Your task to perform on an android device: Go to network settings Image 0: 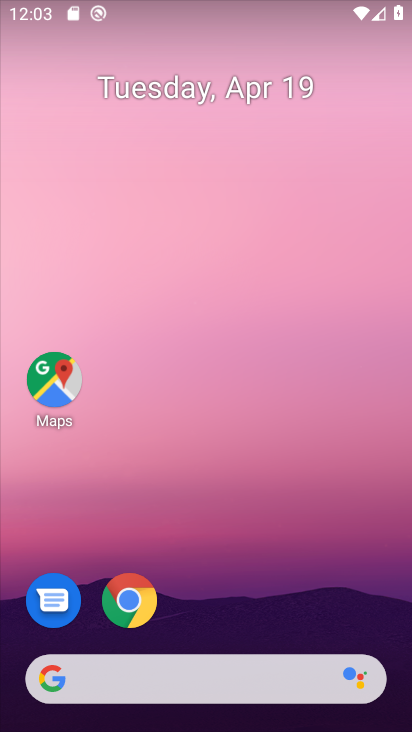
Step 0: drag from (172, 674) to (136, 83)
Your task to perform on an android device: Go to network settings Image 1: 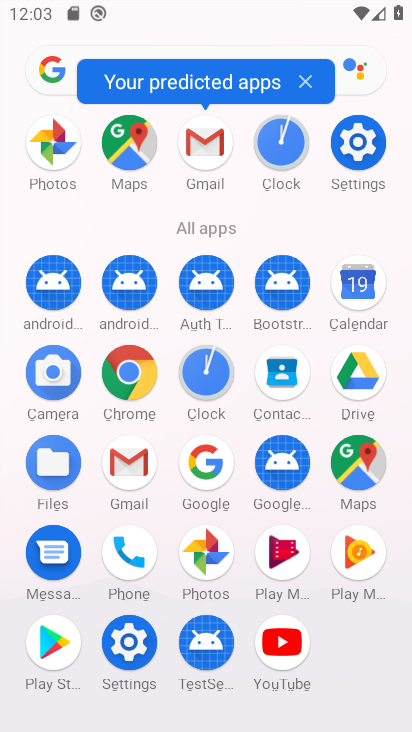
Step 1: click (344, 137)
Your task to perform on an android device: Go to network settings Image 2: 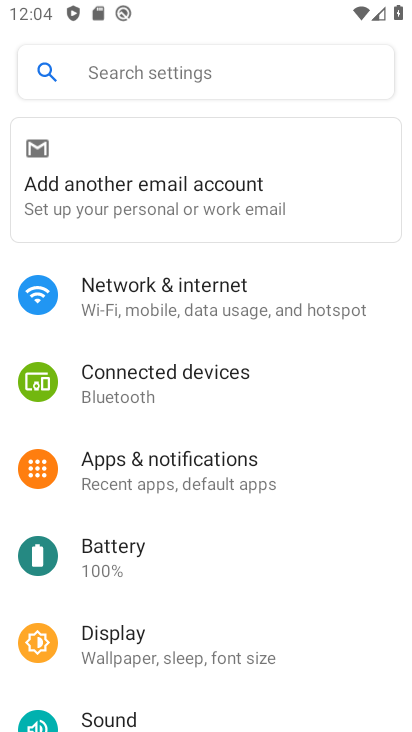
Step 2: click (223, 293)
Your task to perform on an android device: Go to network settings Image 3: 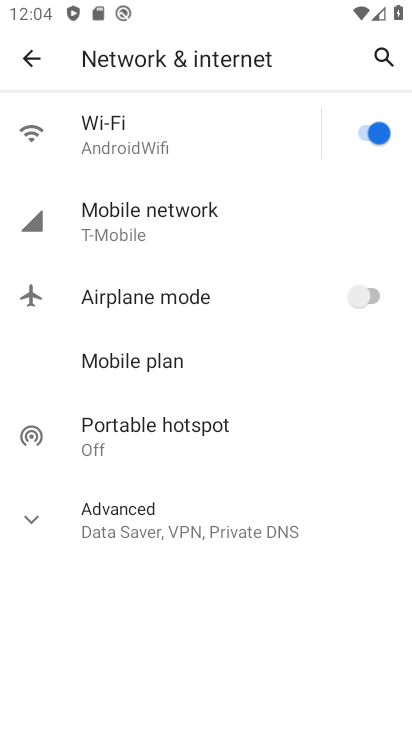
Step 3: task complete